Your task to perform on an android device: manage bookmarks in the chrome app Image 0: 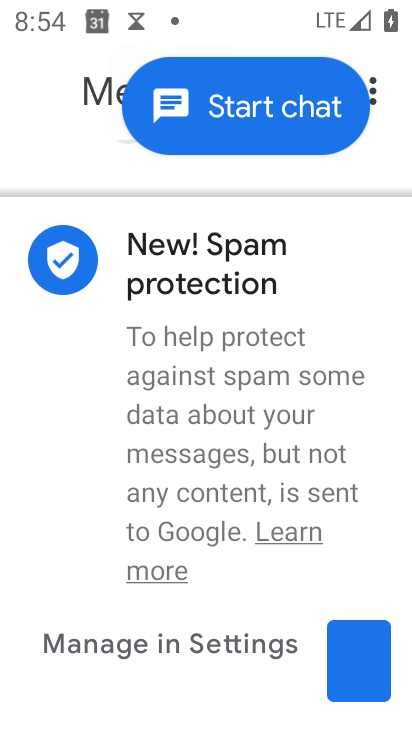
Step 0: press home button
Your task to perform on an android device: manage bookmarks in the chrome app Image 1: 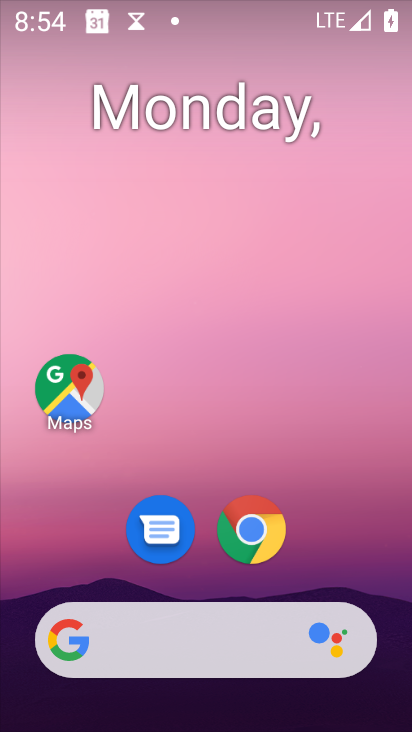
Step 1: click (259, 538)
Your task to perform on an android device: manage bookmarks in the chrome app Image 2: 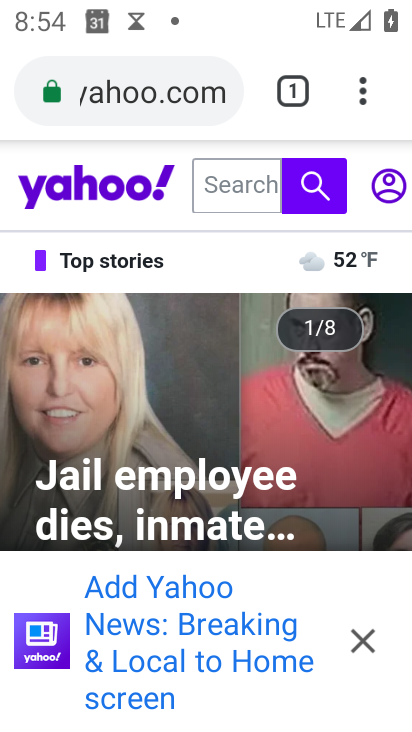
Step 2: press home button
Your task to perform on an android device: manage bookmarks in the chrome app Image 3: 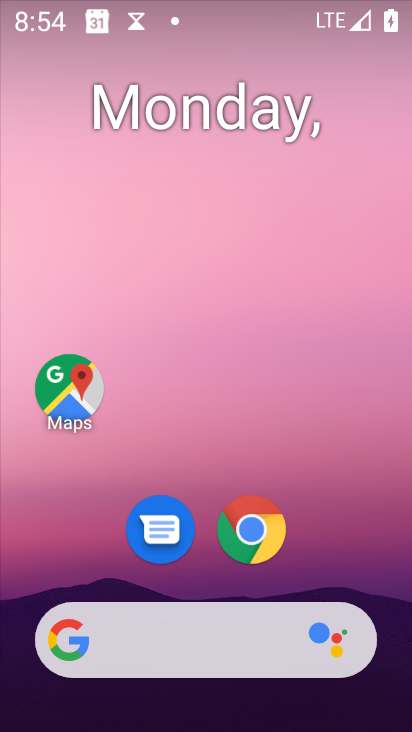
Step 3: click (244, 544)
Your task to perform on an android device: manage bookmarks in the chrome app Image 4: 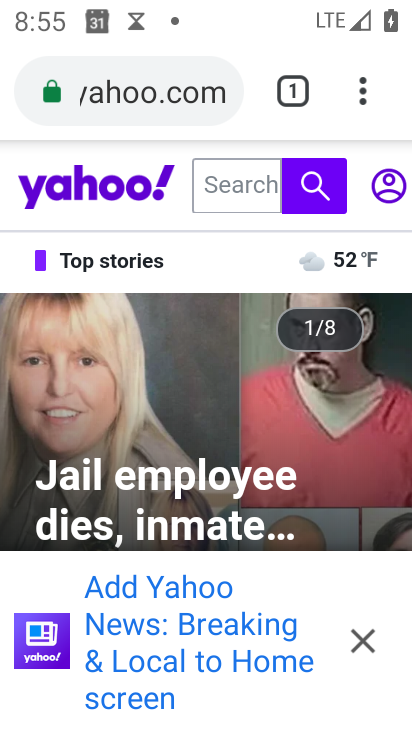
Step 4: click (368, 85)
Your task to perform on an android device: manage bookmarks in the chrome app Image 5: 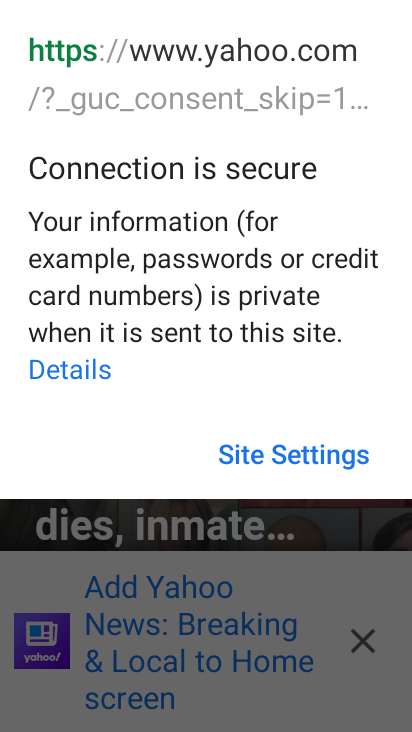
Step 5: press back button
Your task to perform on an android device: manage bookmarks in the chrome app Image 6: 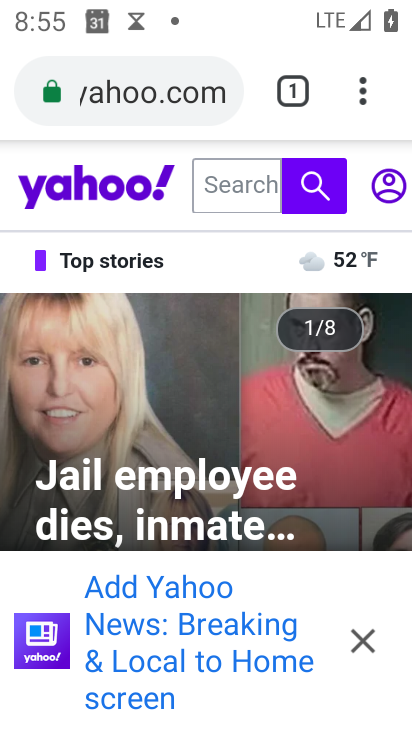
Step 6: click (361, 95)
Your task to perform on an android device: manage bookmarks in the chrome app Image 7: 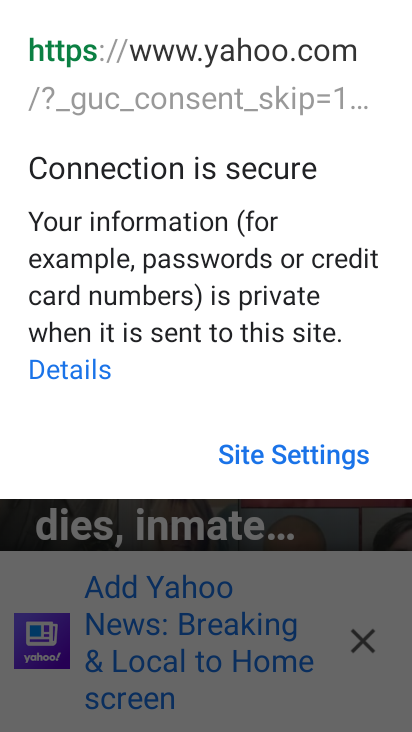
Step 7: press back button
Your task to perform on an android device: manage bookmarks in the chrome app Image 8: 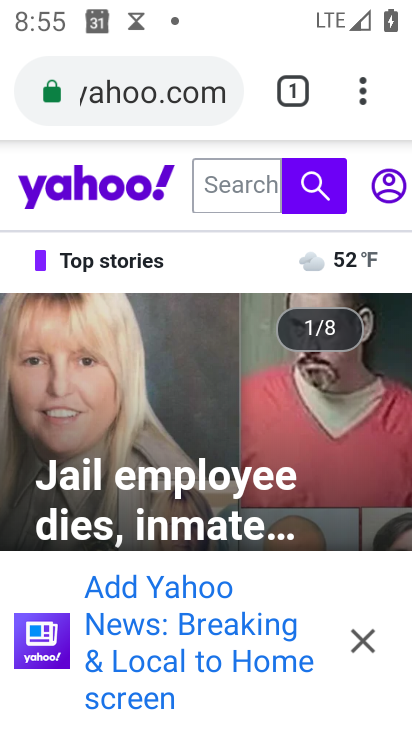
Step 8: click (359, 96)
Your task to perform on an android device: manage bookmarks in the chrome app Image 9: 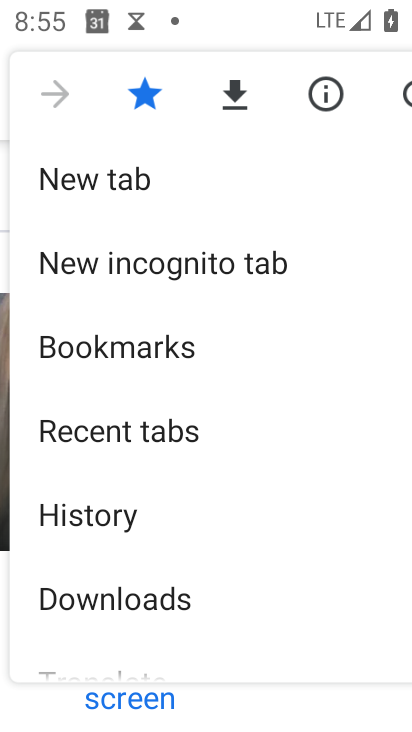
Step 9: click (125, 359)
Your task to perform on an android device: manage bookmarks in the chrome app Image 10: 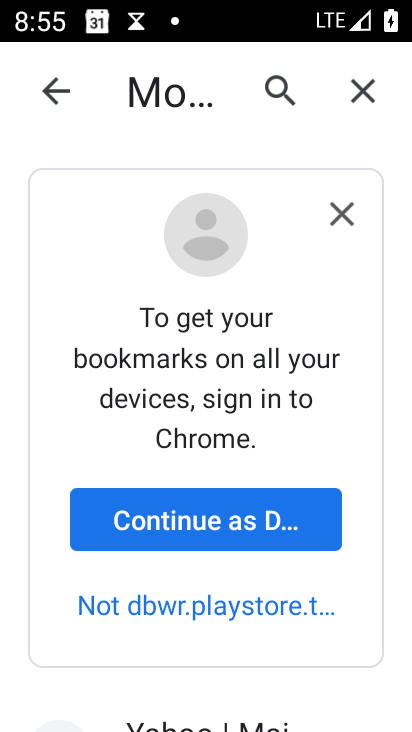
Step 10: click (342, 221)
Your task to perform on an android device: manage bookmarks in the chrome app Image 11: 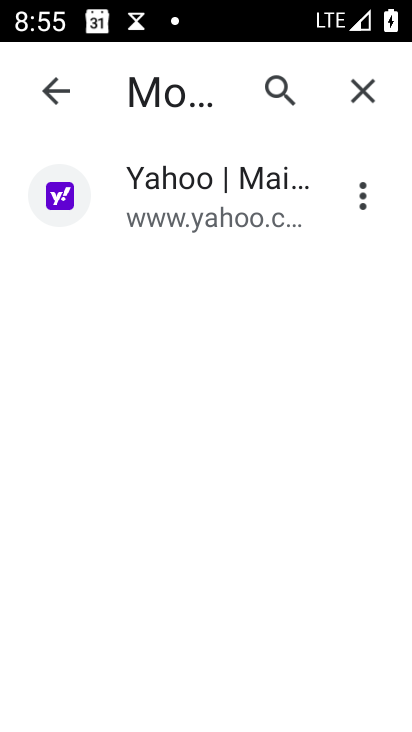
Step 11: task complete